Your task to perform on an android device: Open calendar and show me the fourth week of next month Image 0: 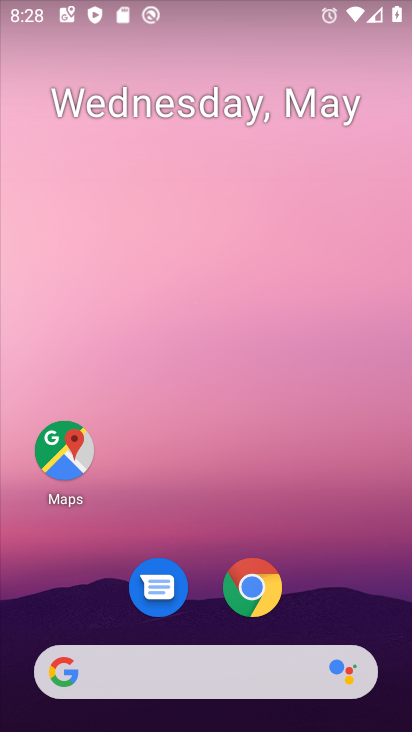
Step 0: drag from (219, 600) to (256, 102)
Your task to perform on an android device: Open calendar and show me the fourth week of next month Image 1: 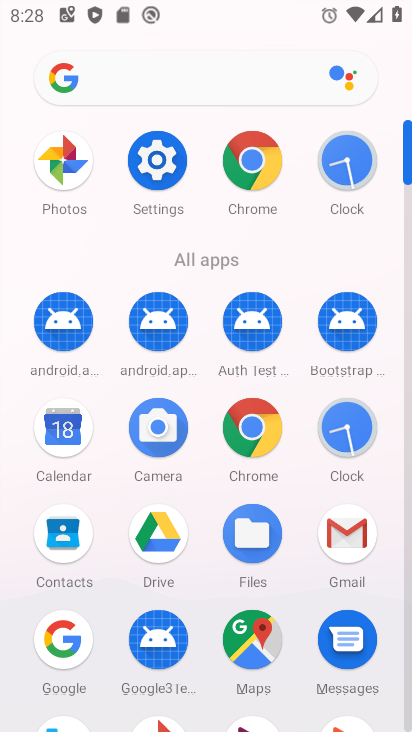
Step 1: click (74, 440)
Your task to perform on an android device: Open calendar and show me the fourth week of next month Image 2: 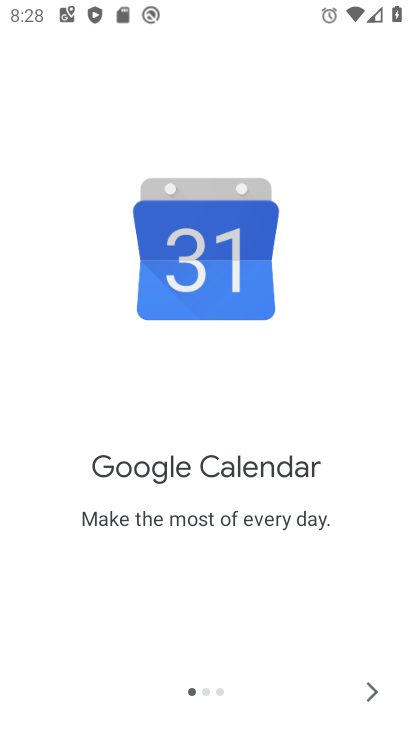
Step 2: click (386, 684)
Your task to perform on an android device: Open calendar and show me the fourth week of next month Image 3: 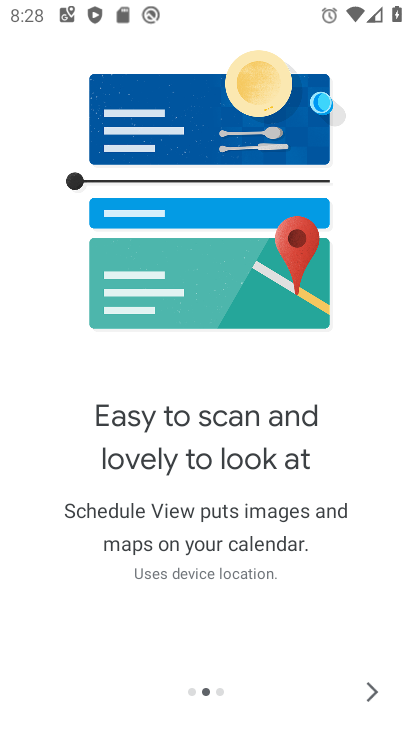
Step 3: click (388, 684)
Your task to perform on an android device: Open calendar and show me the fourth week of next month Image 4: 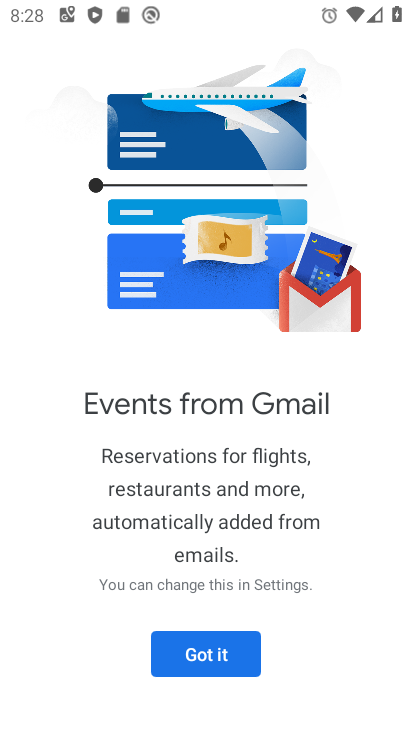
Step 4: click (206, 666)
Your task to perform on an android device: Open calendar and show me the fourth week of next month Image 5: 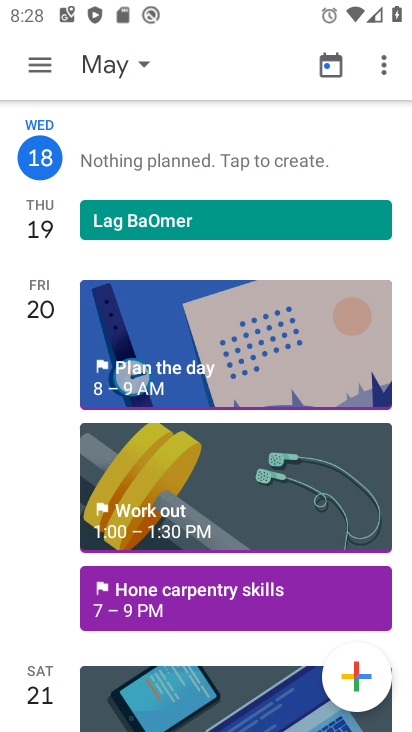
Step 5: click (53, 67)
Your task to perform on an android device: Open calendar and show me the fourth week of next month Image 6: 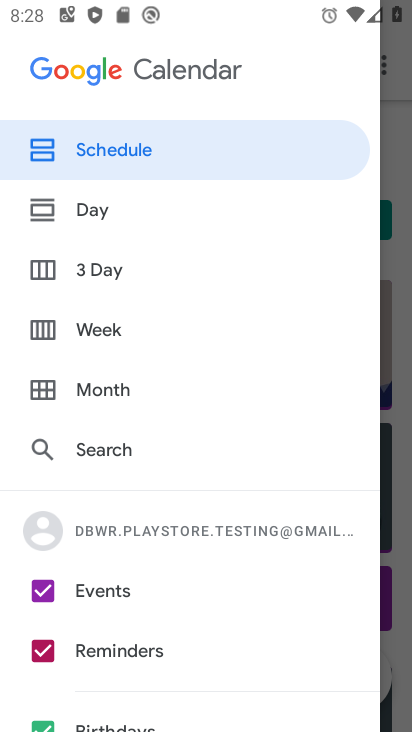
Step 6: click (109, 386)
Your task to perform on an android device: Open calendar and show me the fourth week of next month Image 7: 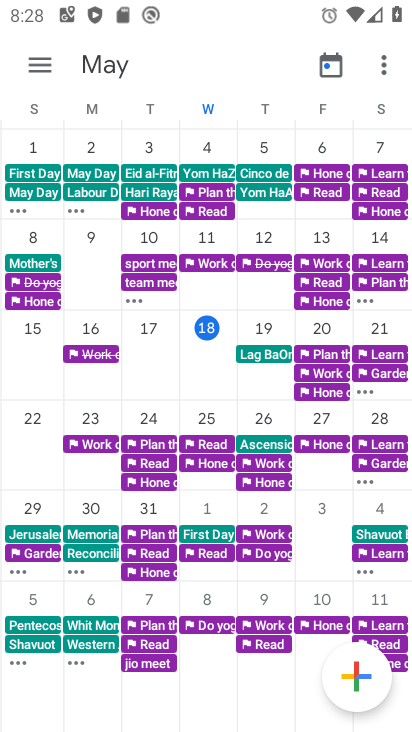
Step 7: drag from (297, 328) to (19, 73)
Your task to perform on an android device: Open calendar and show me the fourth week of next month Image 8: 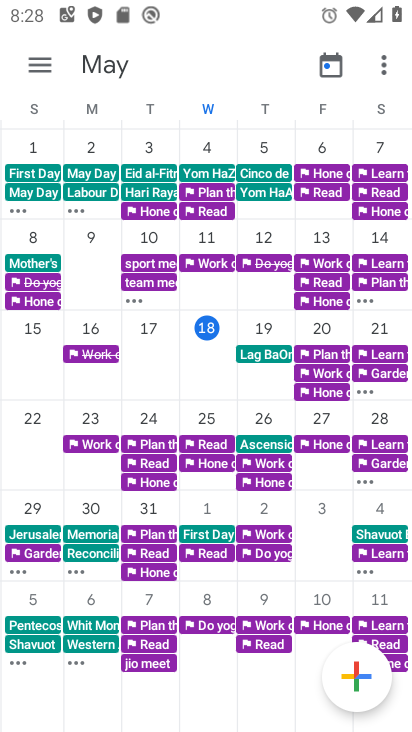
Step 8: drag from (358, 302) to (11, 254)
Your task to perform on an android device: Open calendar and show me the fourth week of next month Image 9: 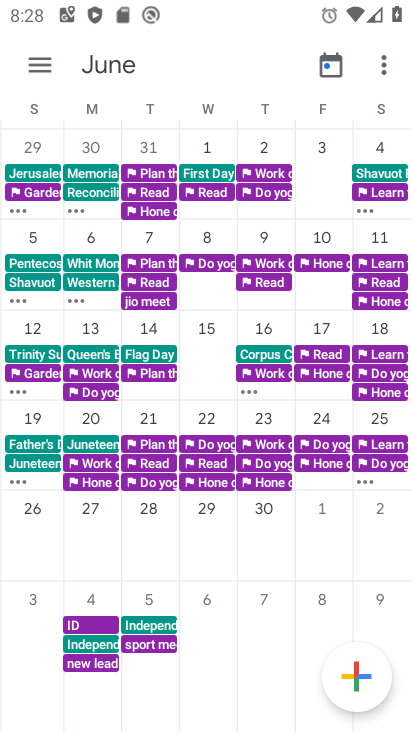
Step 9: click (38, 70)
Your task to perform on an android device: Open calendar and show me the fourth week of next month Image 10: 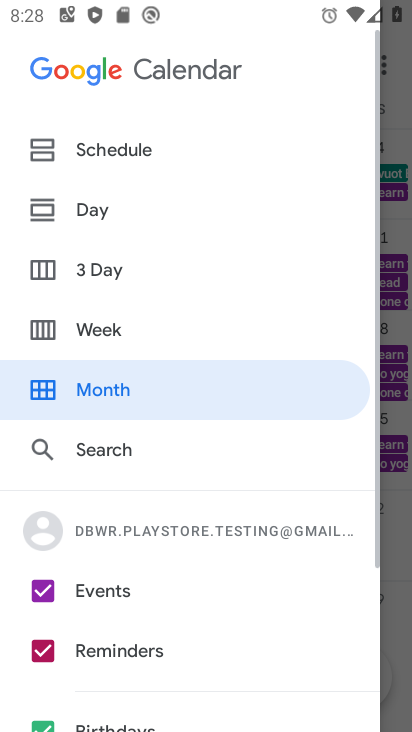
Step 10: click (103, 334)
Your task to perform on an android device: Open calendar and show me the fourth week of next month Image 11: 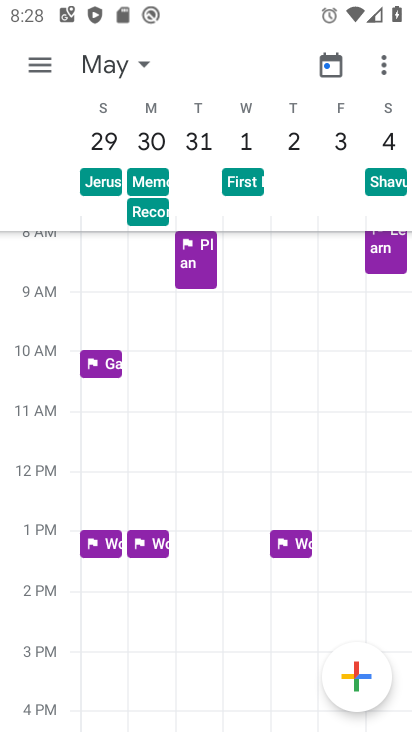
Step 11: task complete